Your task to perform on an android device: check android version Image 0: 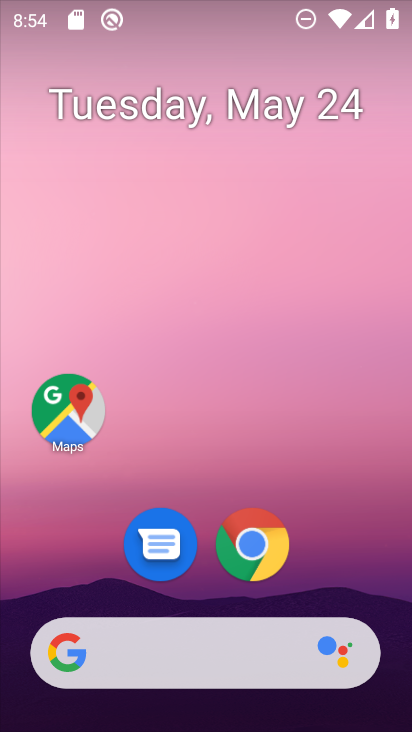
Step 0: drag from (330, 577) to (234, 139)
Your task to perform on an android device: check android version Image 1: 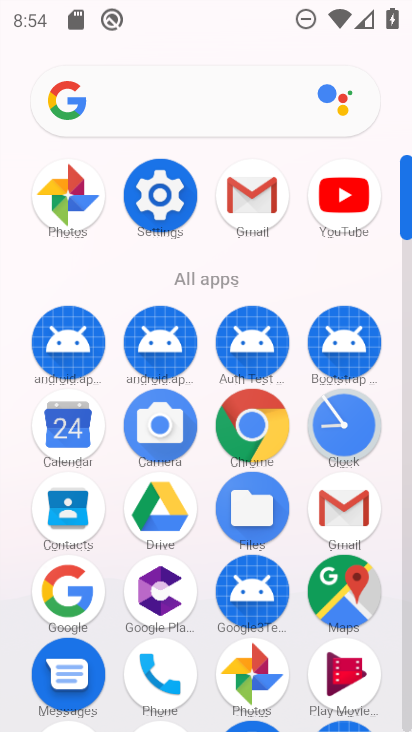
Step 1: click (171, 178)
Your task to perform on an android device: check android version Image 2: 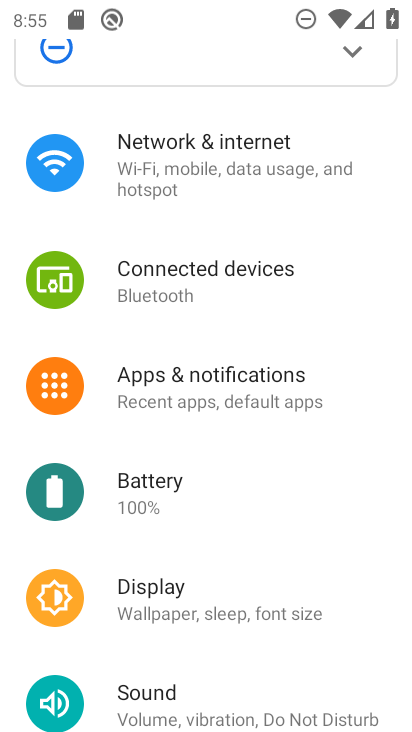
Step 2: task complete